Your task to perform on an android device: Open the web browser Image 0: 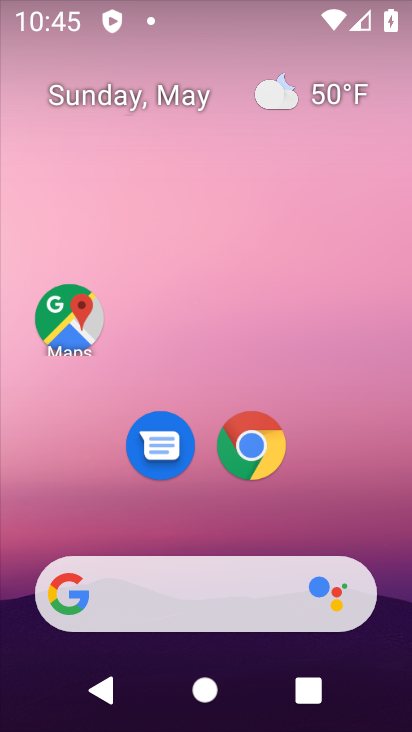
Step 0: click (252, 445)
Your task to perform on an android device: Open the web browser Image 1: 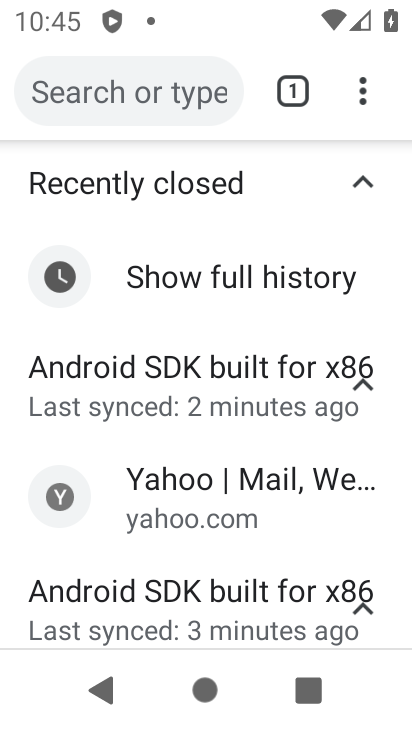
Step 1: click (364, 86)
Your task to perform on an android device: Open the web browser Image 2: 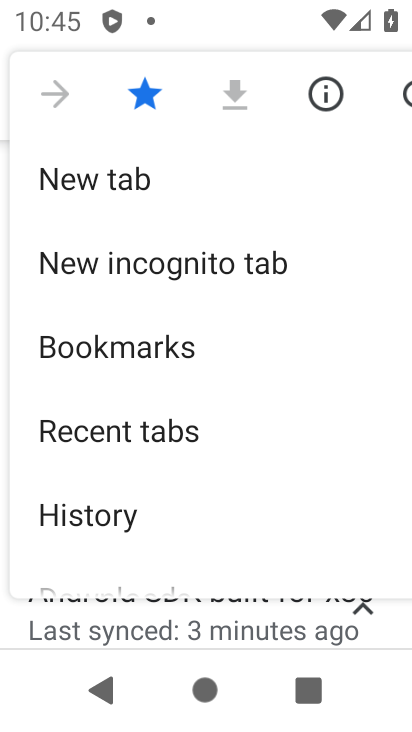
Step 2: click (115, 205)
Your task to perform on an android device: Open the web browser Image 3: 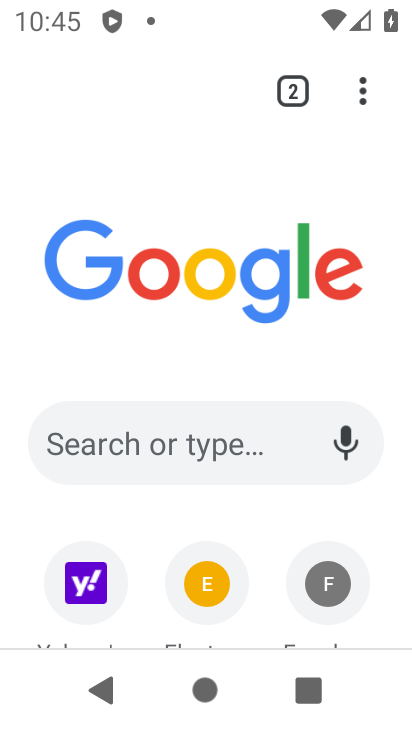
Step 3: task complete